Your task to perform on an android device: turn on location history Image 0: 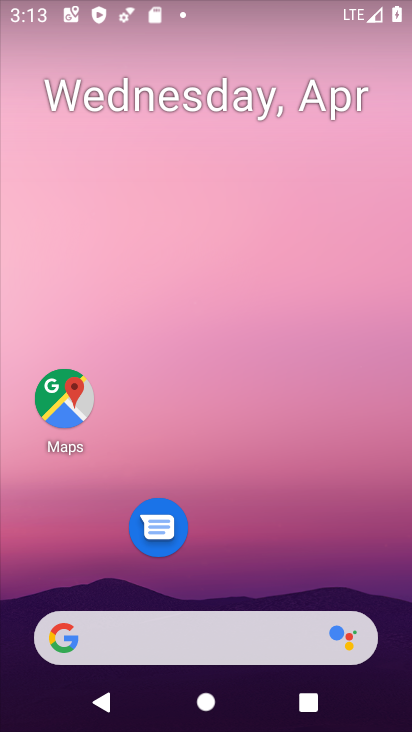
Step 0: drag from (228, 473) to (216, 83)
Your task to perform on an android device: turn on location history Image 1: 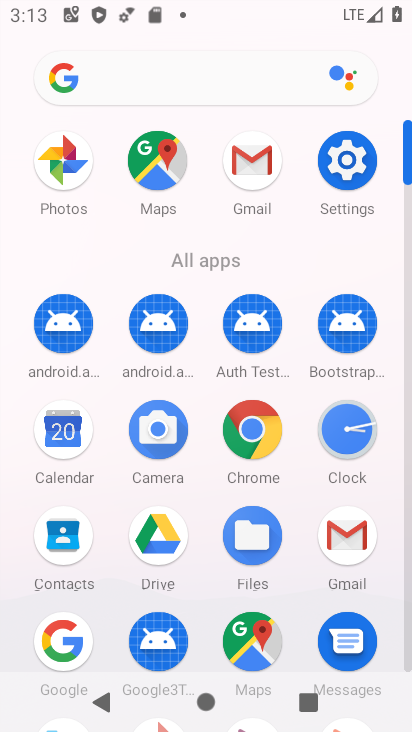
Step 1: click (343, 166)
Your task to perform on an android device: turn on location history Image 2: 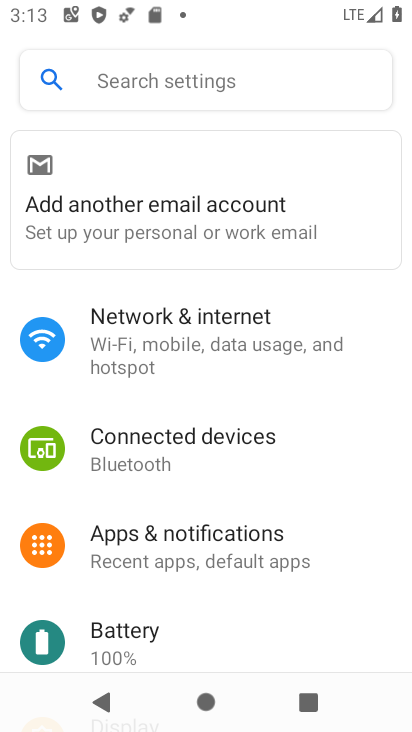
Step 2: drag from (188, 346) to (189, 52)
Your task to perform on an android device: turn on location history Image 3: 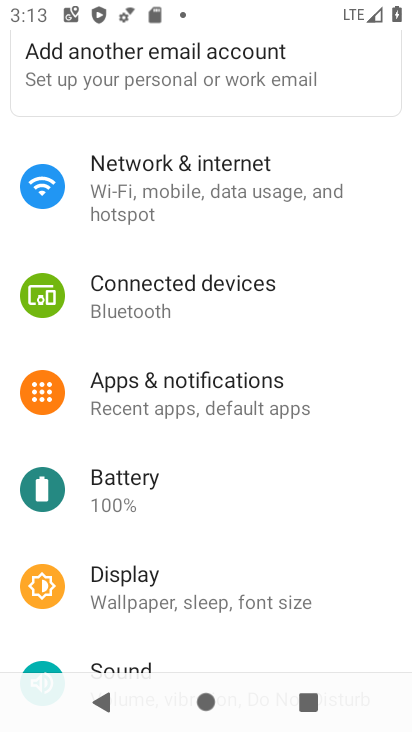
Step 3: drag from (194, 607) to (198, 88)
Your task to perform on an android device: turn on location history Image 4: 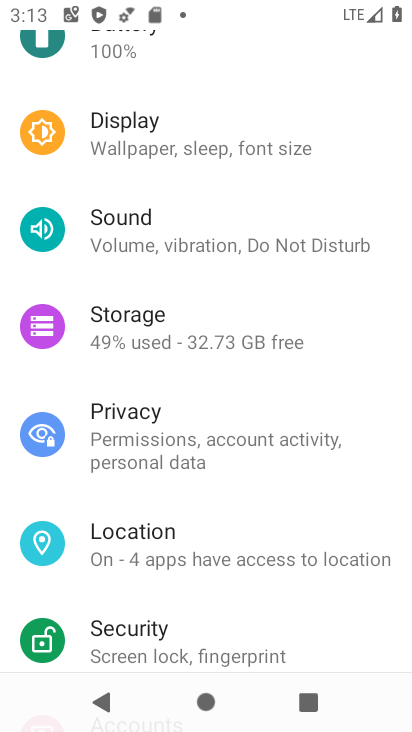
Step 4: click (197, 535)
Your task to perform on an android device: turn on location history Image 5: 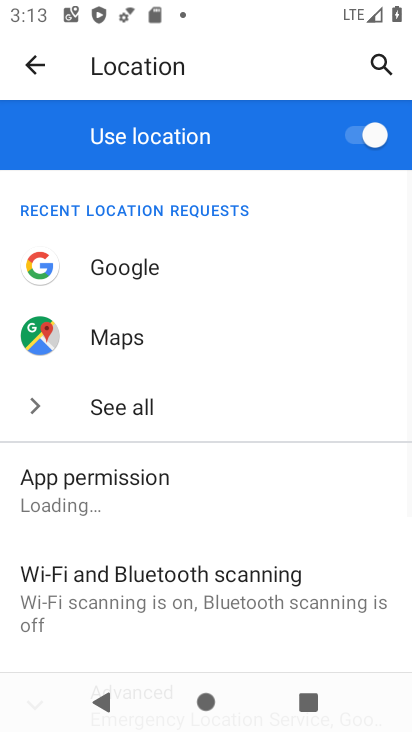
Step 5: drag from (214, 610) to (231, 239)
Your task to perform on an android device: turn on location history Image 6: 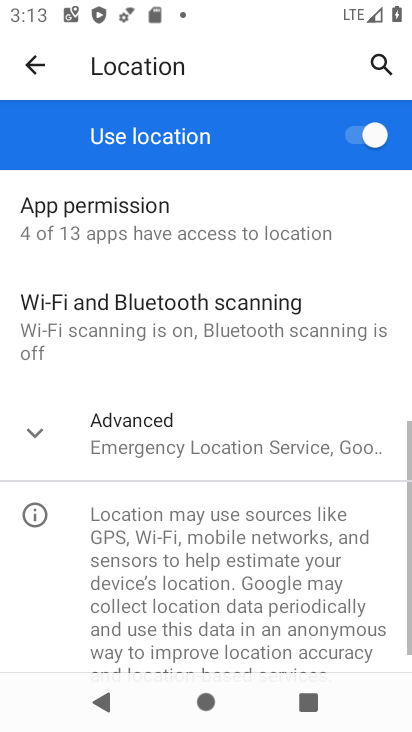
Step 6: click (173, 433)
Your task to perform on an android device: turn on location history Image 7: 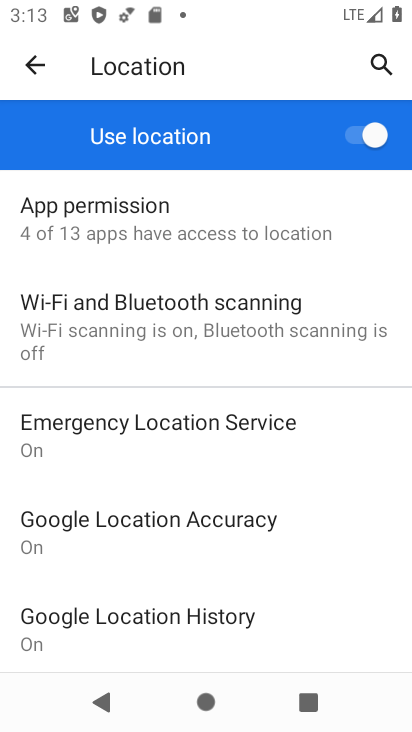
Step 7: click (191, 620)
Your task to perform on an android device: turn on location history Image 8: 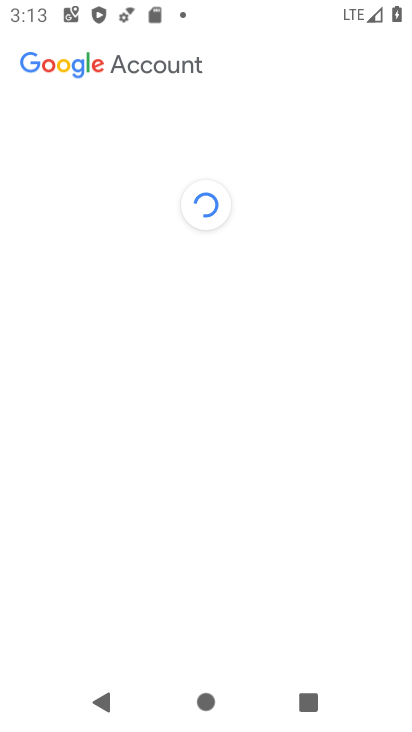
Step 8: task complete